Your task to perform on an android device: Open Wikipedia Image 0: 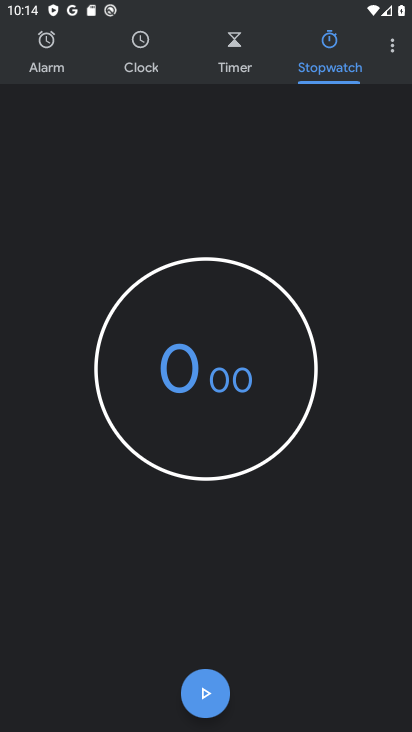
Step 0: press home button
Your task to perform on an android device: Open Wikipedia Image 1: 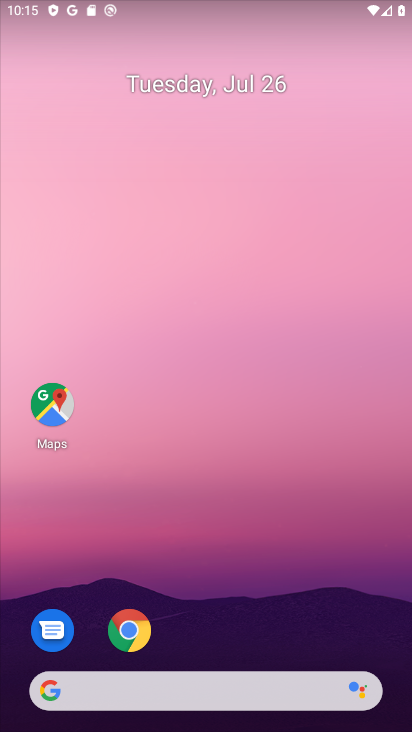
Step 1: click (186, 703)
Your task to perform on an android device: Open Wikipedia Image 2: 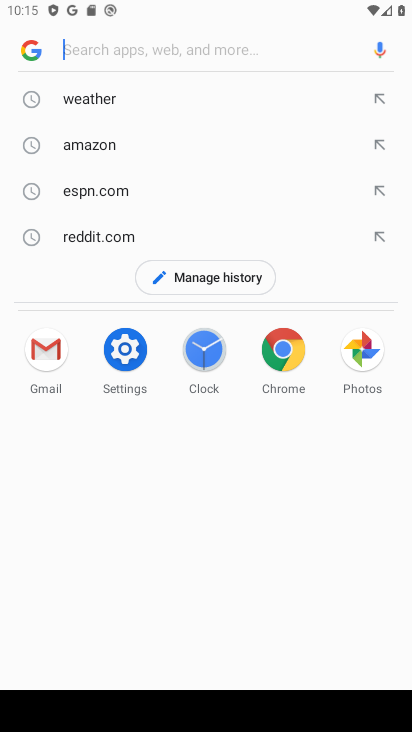
Step 2: type "wikipedia "
Your task to perform on an android device: Open Wikipedia Image 3: 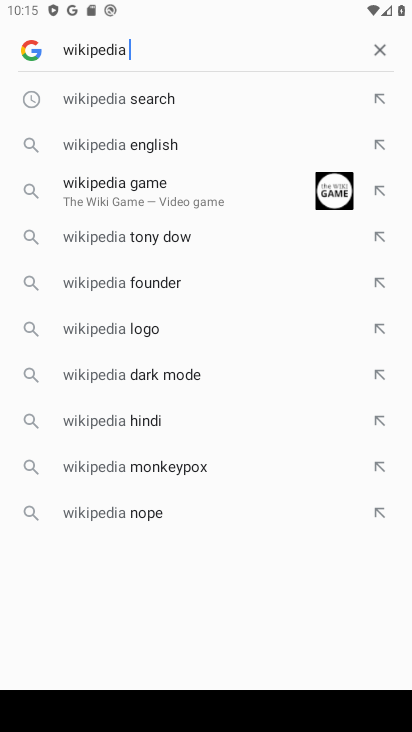
Step 3: press enter
Your task to perform on an android device: Open Wikipedia Image 4: 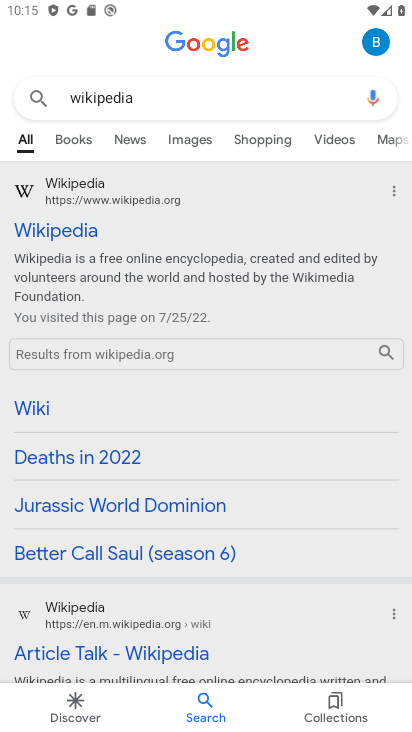
Step 4: click (81, 196)
Your task to perform on an android device: Open Wikipedia Image 5: 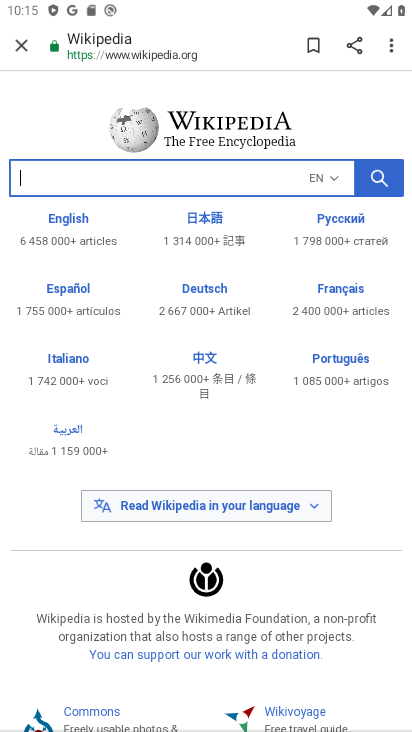
Step 5: task complete